Your task to perform on an android device: Go to battery settings Image 0: 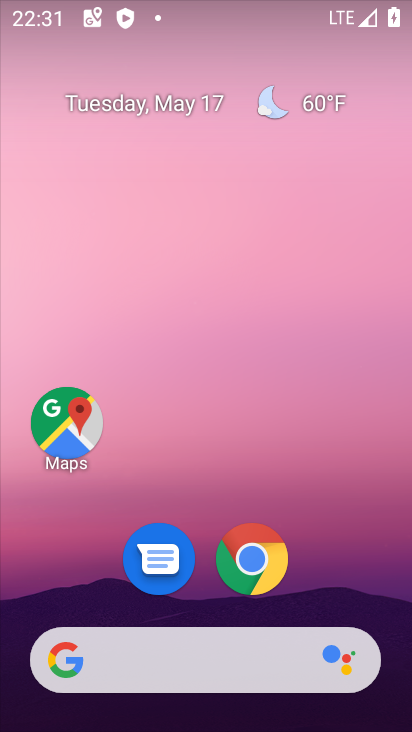
Step 0: drag from (348, 556) to (357, 83)
Your task to perform on an android device: Go to battery settings Image 1: 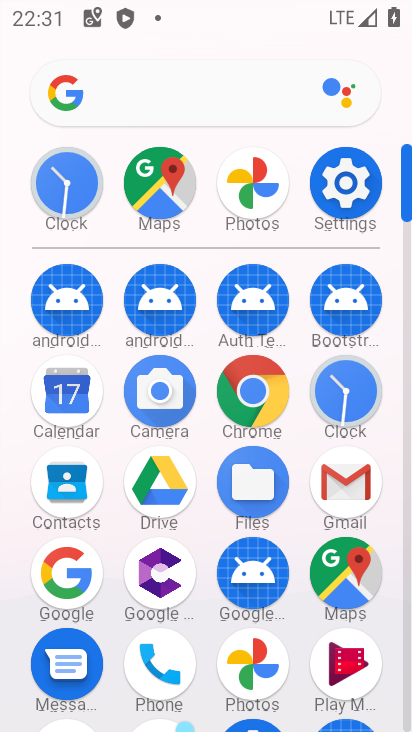
Step 1: click (360, 188)
Your task to perform on an android device: Go to battery settings Image 2: 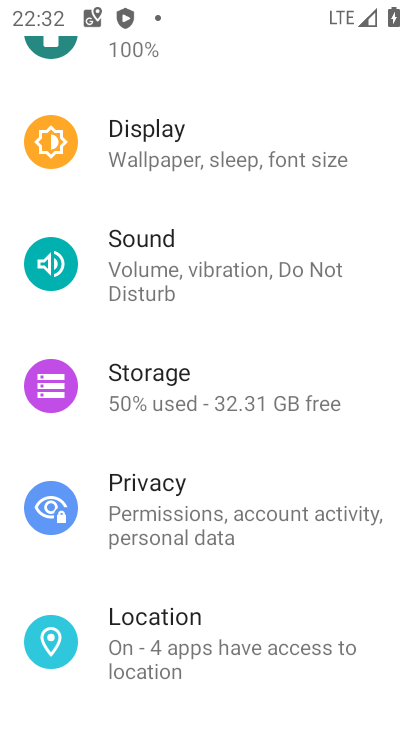
Step 2: drag from (267, 185) to (253, 541)
Your task to perform on an android device: Go to battery settings Image 3: 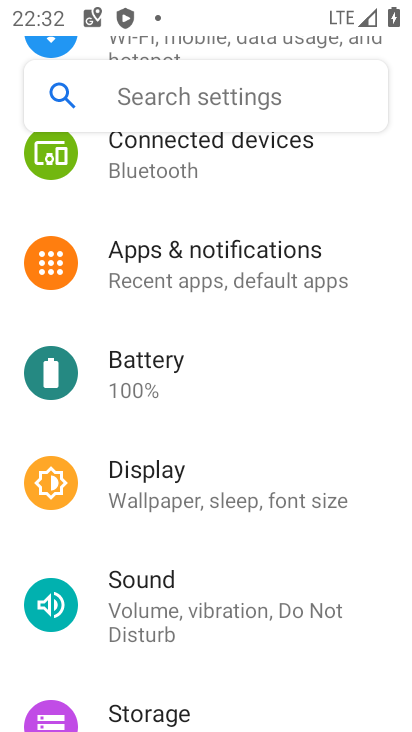
Step 3: click (143, 371)
Your task to perform on an android device: Go to battery settings Image 4: 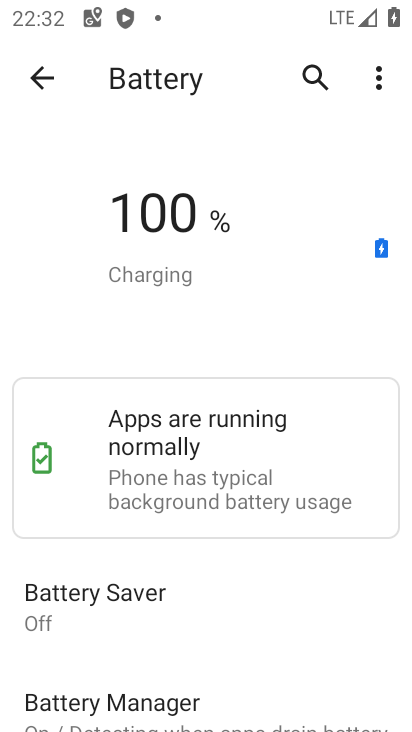
Step 4: task complete